Your task to perform on an android device: install app "Walmart Shopping & Grocery" Image 0: 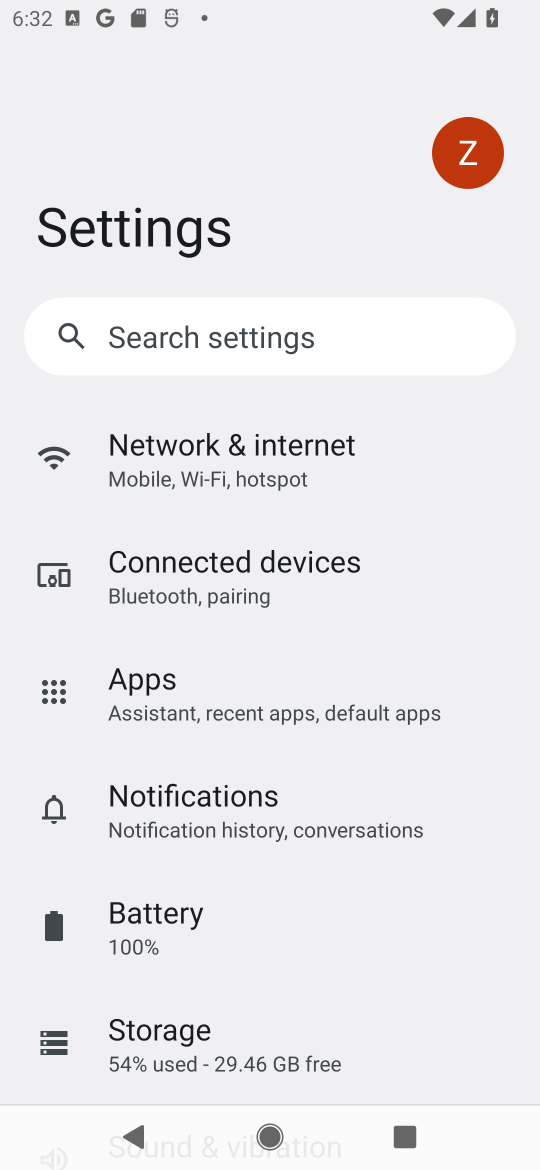
Step 0: press home button
Your task to perform on an android device: install app "Walmart Shopping & Grocery" Image 1: 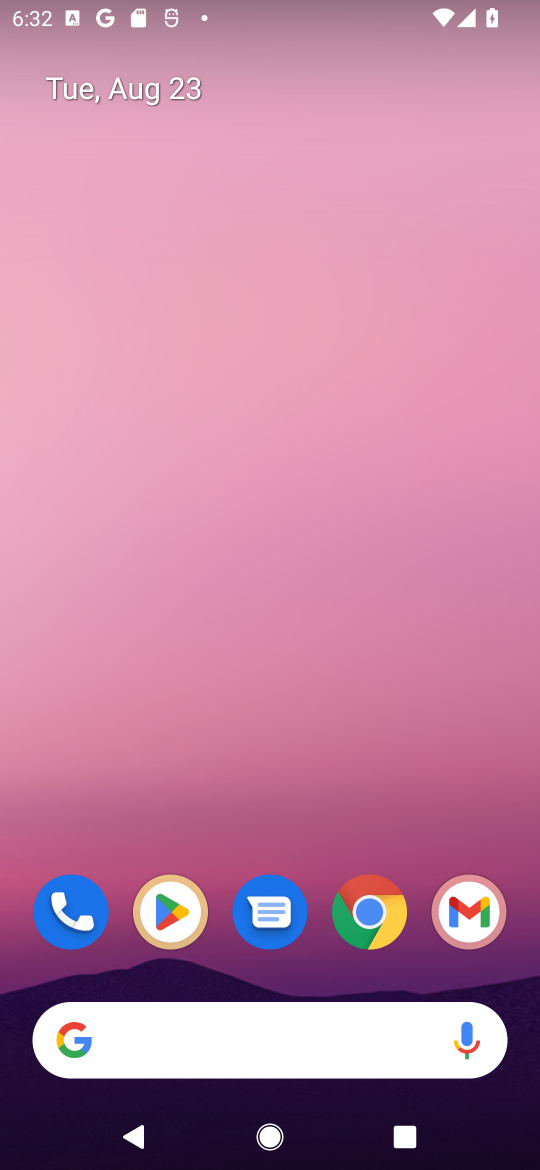
Step 1: drag from (235, 1018) to (232, 555)
Your task to perform on an android device: install app "Walmart Shopping & Grocery" Image 2: 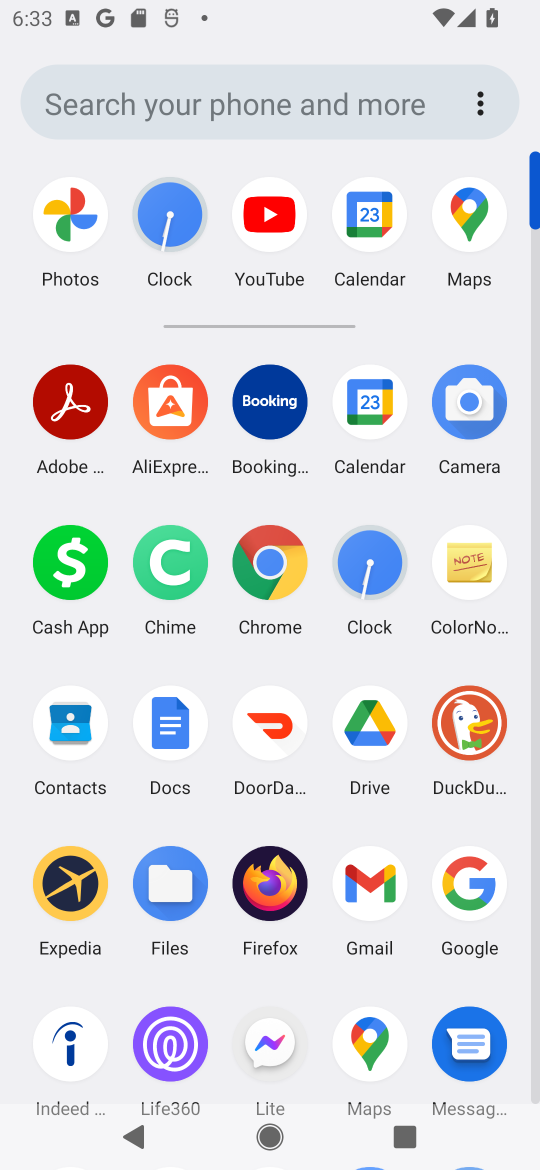
Step 2: drag from (249, 959) to (291, 274)
Your task to perform on an android device: install app "Walmart Shopping & Grocery" Image 3: 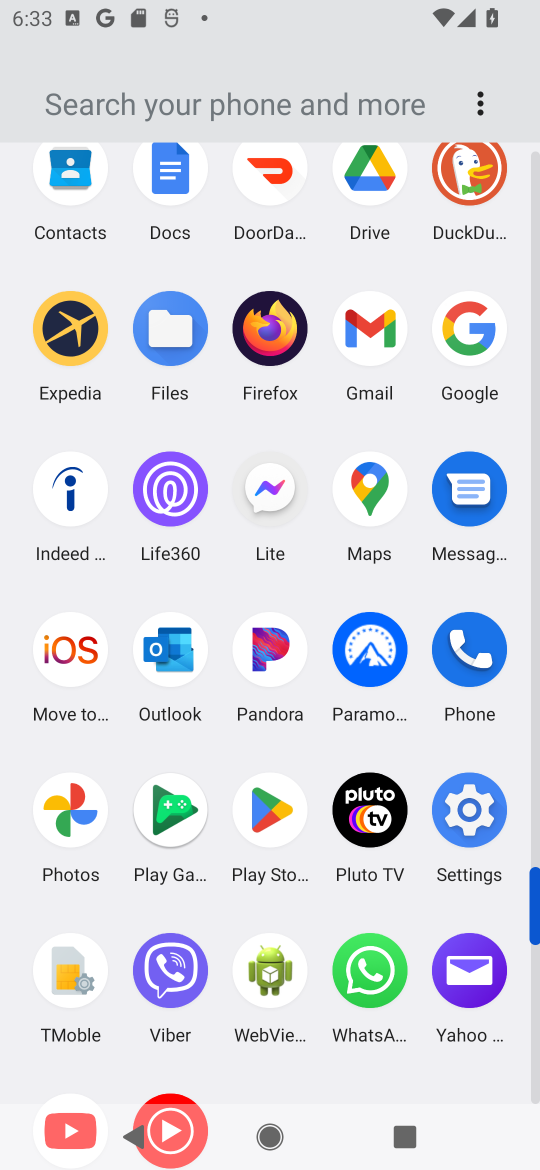
Step 3: click (257, 801)
Your task to perform on an android device: install app "Walmart Shopping & Grocery" Image 4: 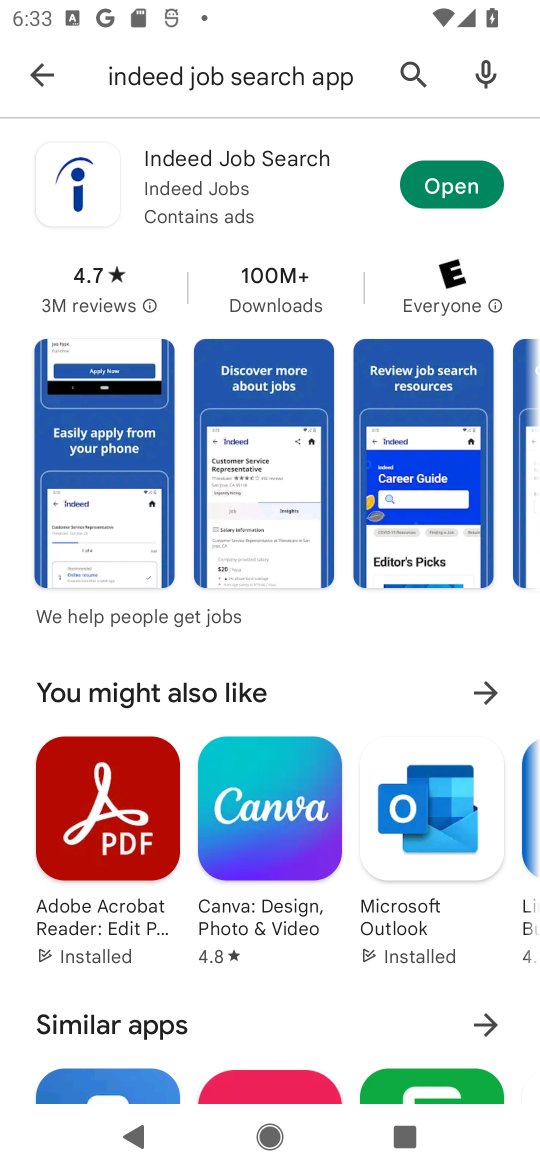
Step 4: click (44, 81)
Your task to perform on an android device: install app "Walmart Shopping & Grocery" Image 5: 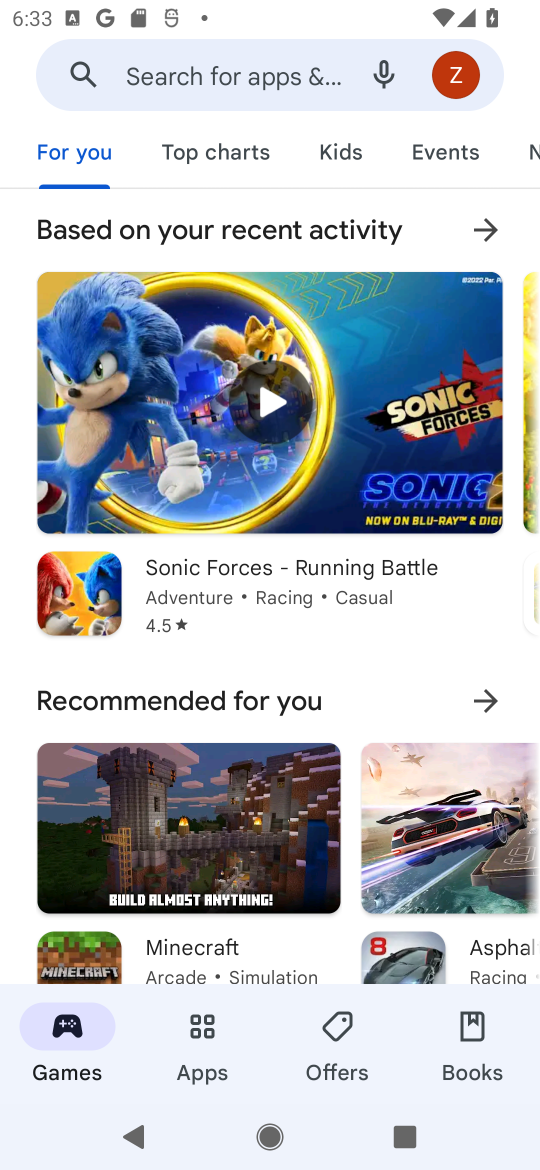
Step 5: click (144, 62)
Your task to perform on an android device: install app "Walmart Shopping & Grocery" Image 6: 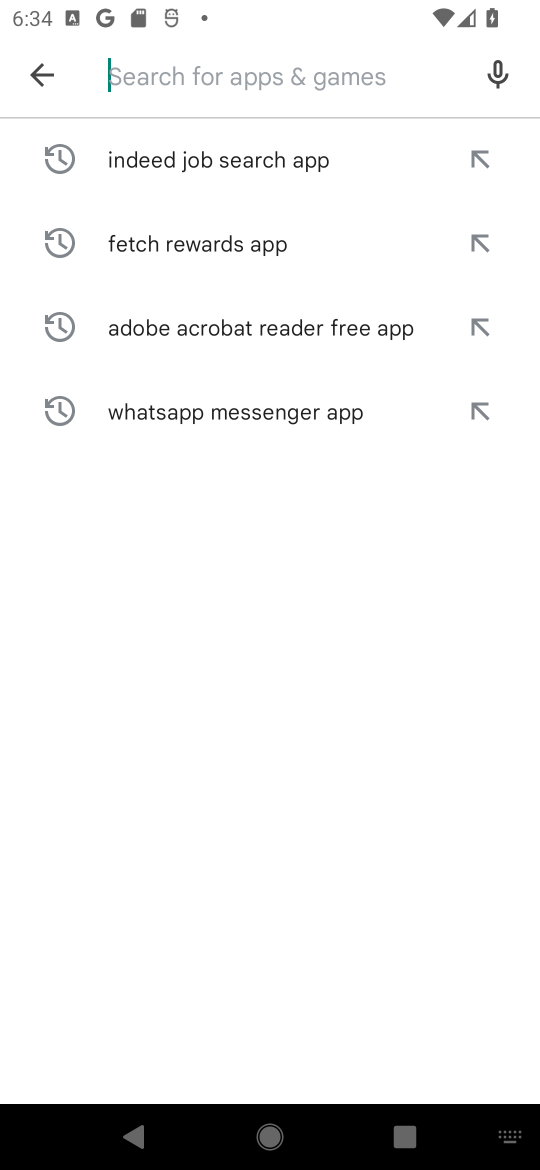
Step 6: click (227, 61)
Your task to perform on an android device: install app "Walmart Shopping & Grocery" Image 7: 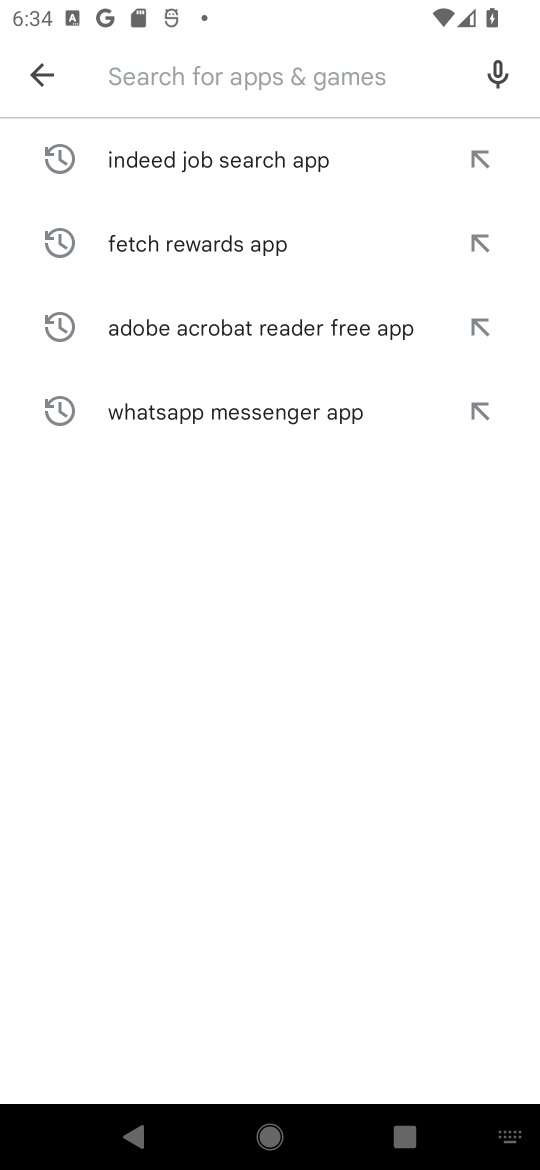
Step 7: type "Walmart Shopping & Grocery "
Your task to perform on an android device: install app "Walmart Shopping & Grocery" Image 8: 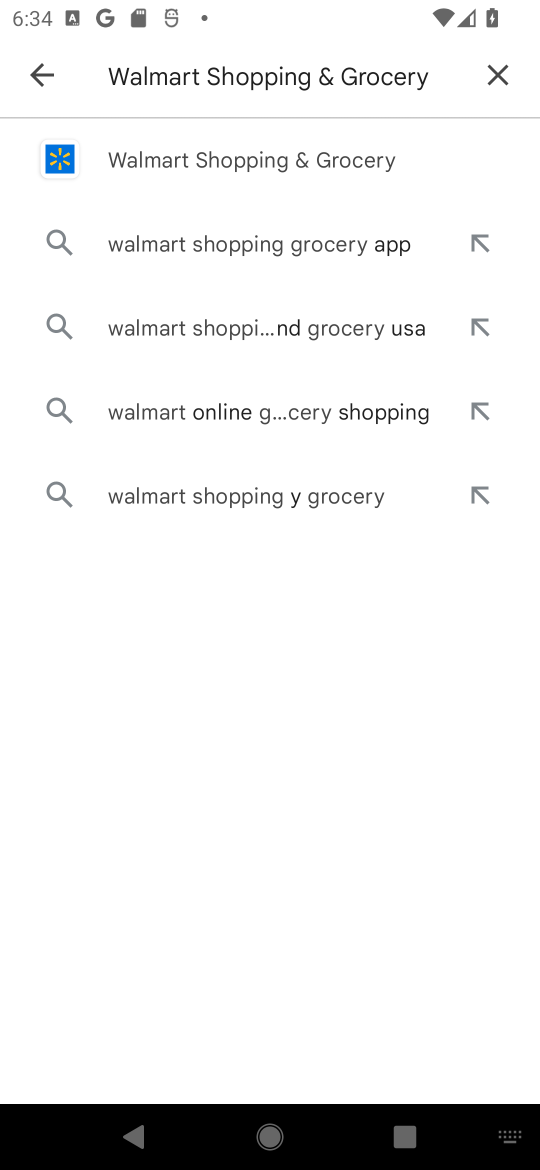
Step 8: click (195, 163)
Your task to perform on an android device: install app "Walmart Shopping & Grocery" Image 9: 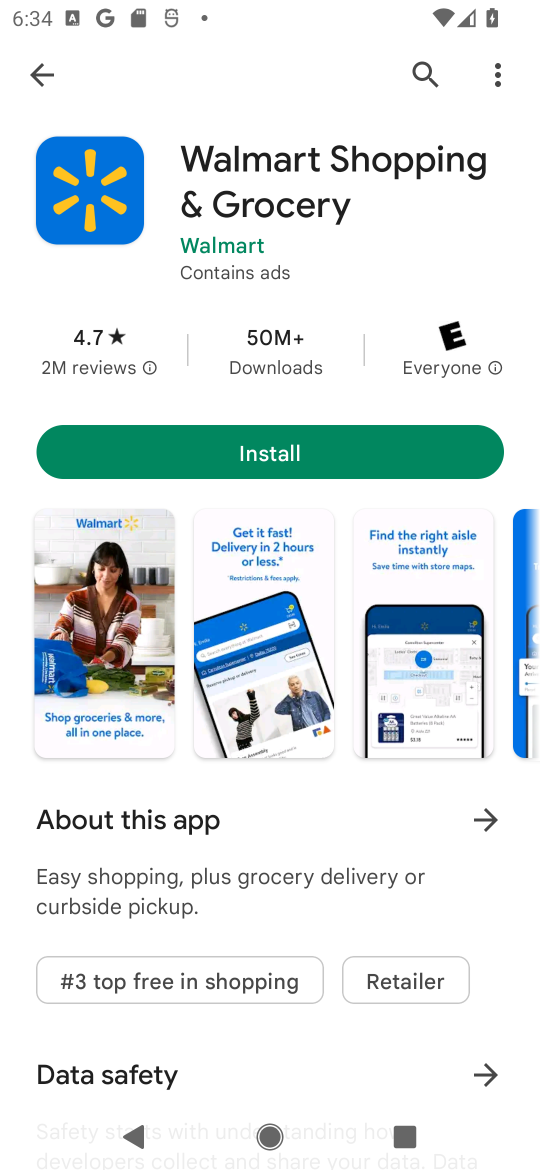
Step 9: click (297, 448)
Your task to perform on an android device: install app "Walmart Shopping & Grocery" Image 10: 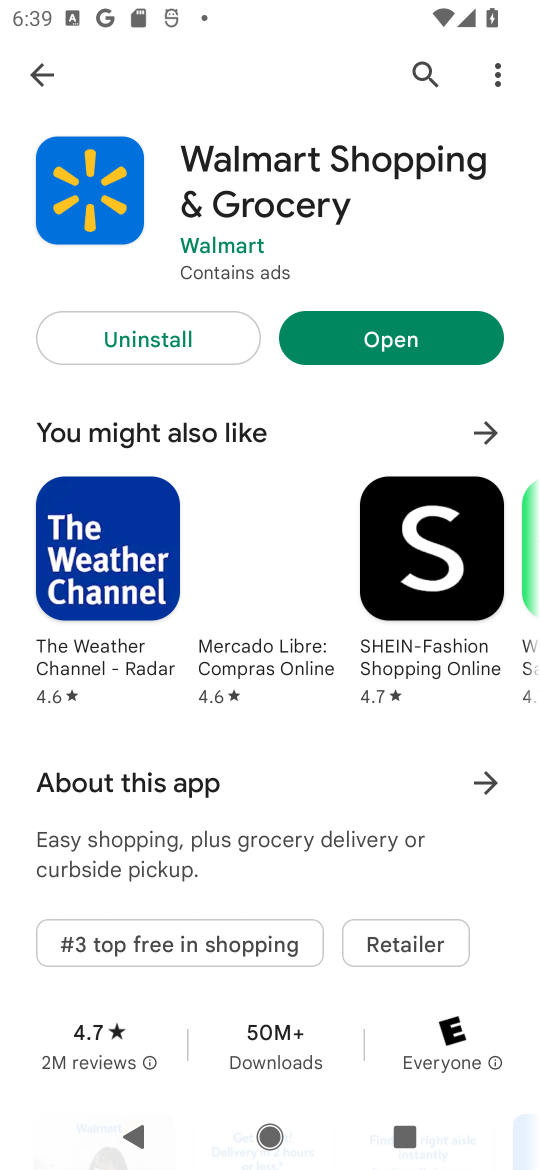
Step 10: click (381, 342)
Your task to perform on an android device: install app "Walmart Shopping & Grocery" Image 11: 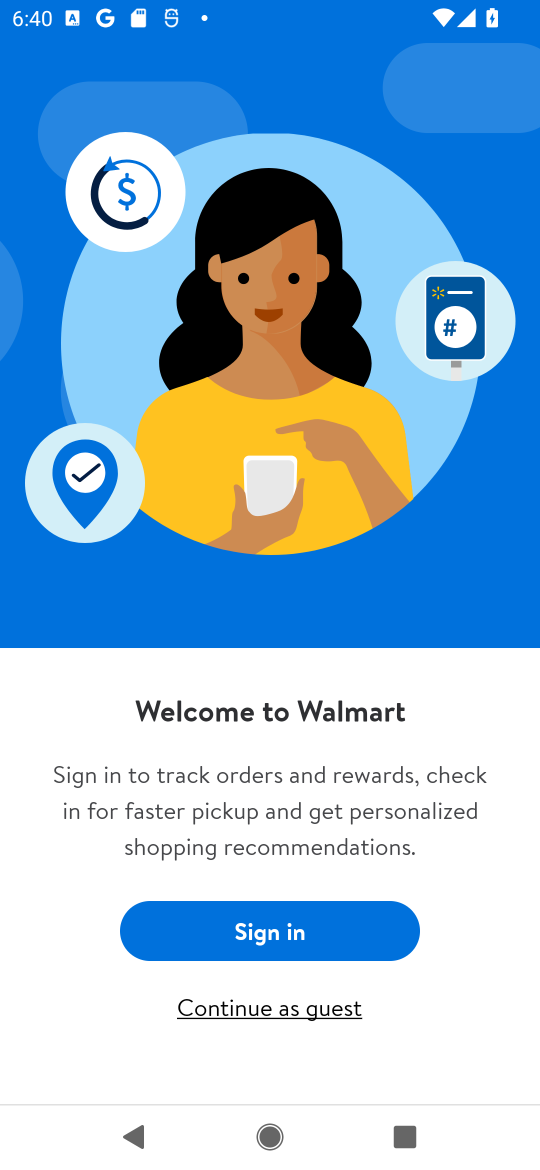
Step 11: task complete